Your task to perform on an android device: turn on bluetooth scan Image 0: 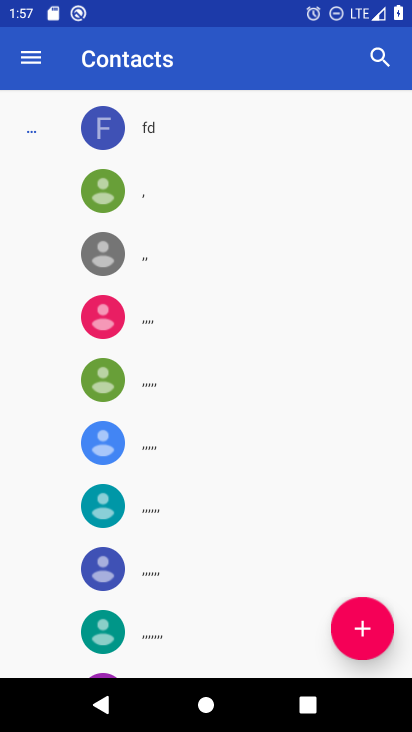
Step 0: press home button
Your task to perform on an android device: turn on bluetooth scan Image 1: 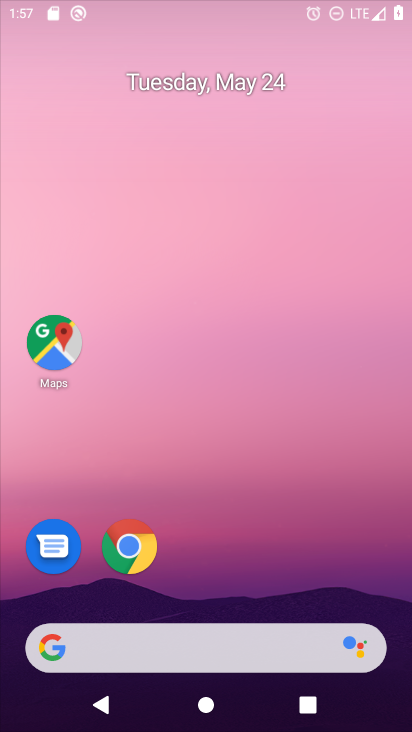
Step 1: drag from (290, 621) to (316, 3)
Your task to perform on an android device: turn on bluetooth scan Image 2: 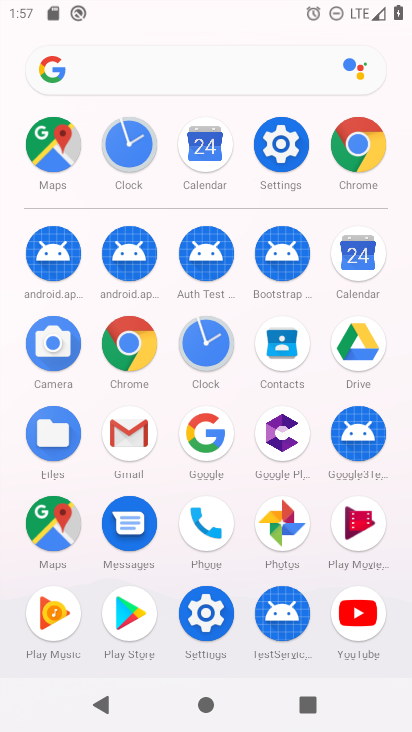
Step 2: click (290, 142)
Your task to perform on an android device: turn on bluetooth scan Image 3: 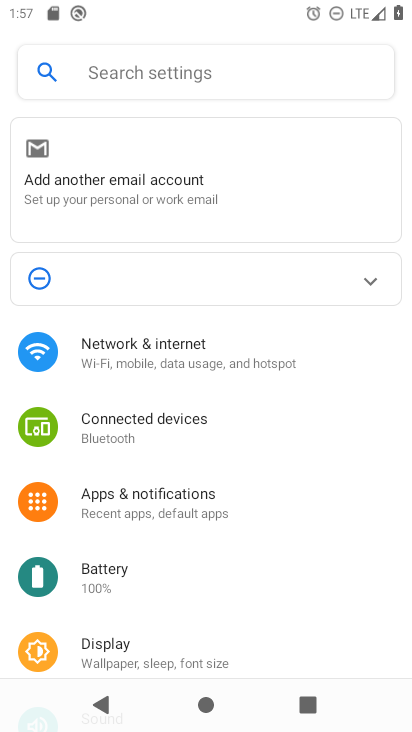
Step 3: drag from (230, 504) to (296, 44)
Your task to perform on an android device: turn on bluetooth scan Image 4: 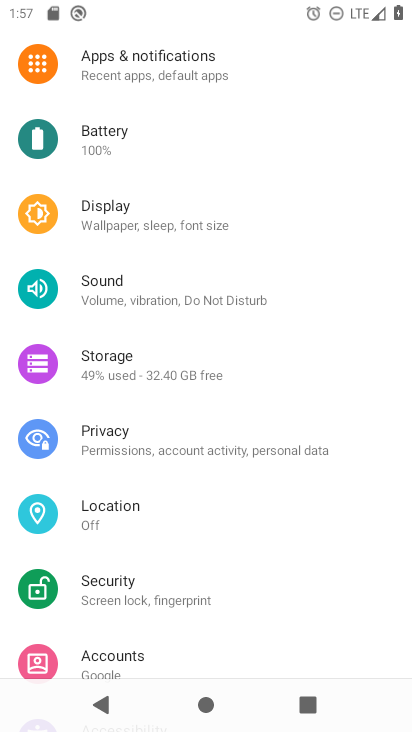
Step 4: click (136, 509)
Your task to perform on an android device: turn on bluetooth scan Image 5: 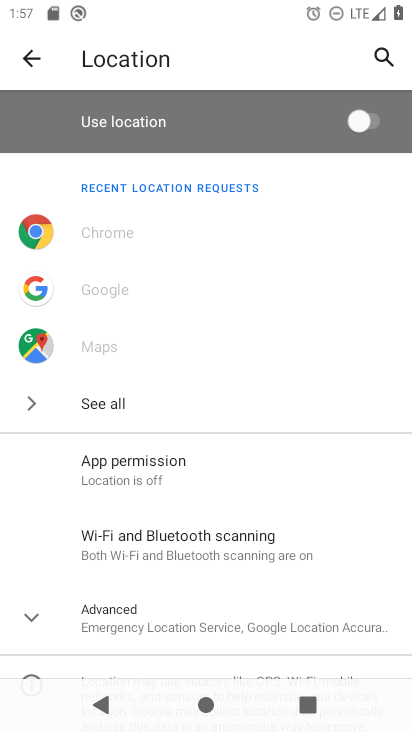
Step 5: click (294, 541)
Your task to perform on an android device: turn on bluetooth scan Image 6: 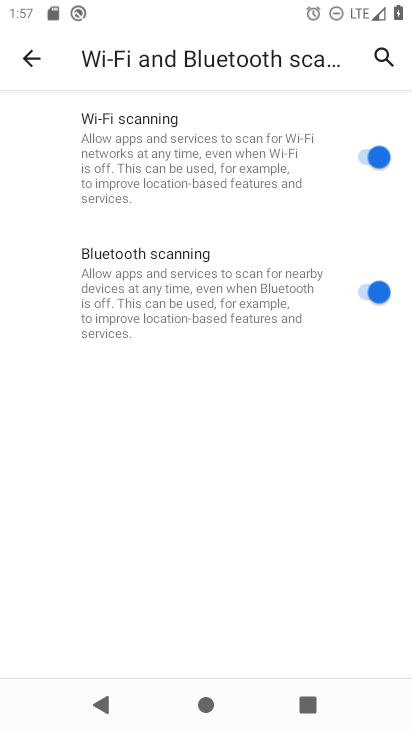
Step 6: task complete